Your task to perform on an android device: change notifications settings Image 0: 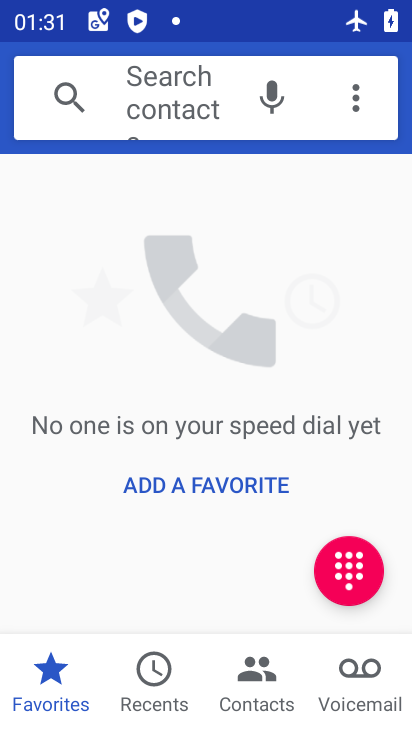
Step 0: press home button
Your task to perform on an android device: change notifications settings Image 1: 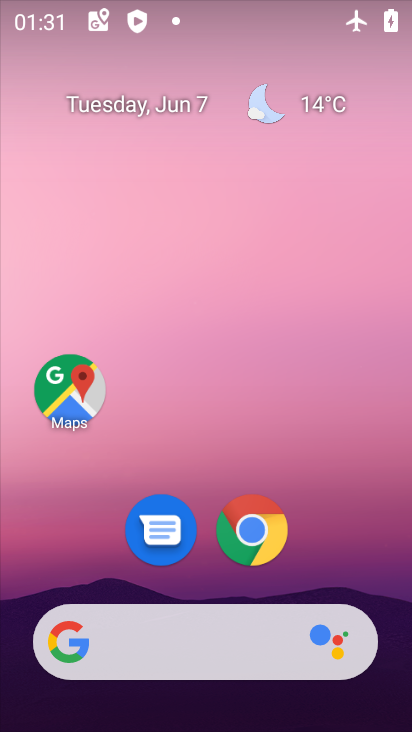
Step 1: drag from (346, 555) to (348, 335)
Your task to perform on an android device: change notifications settings Image 2: 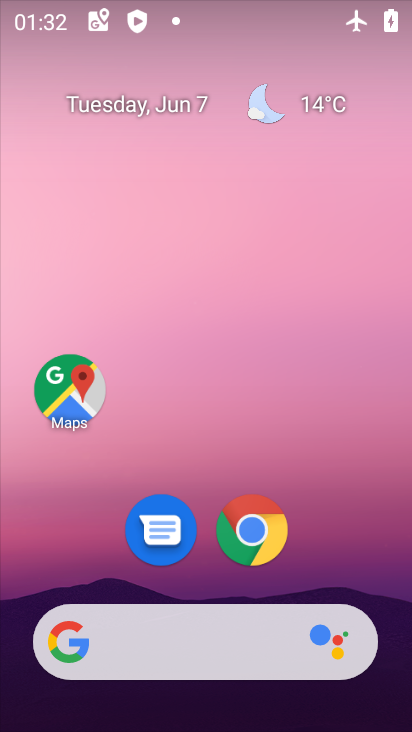
Step 2: drag from (287, 569) to (290, 153)
Your task to perform on an android device: change notifications settings Image 3: 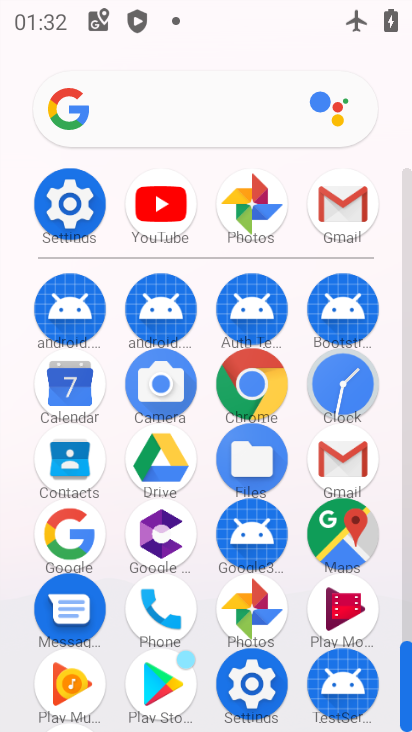
Step 3: click (72, 198)
Your task to perform on an android device: change notifications settings Image 4: 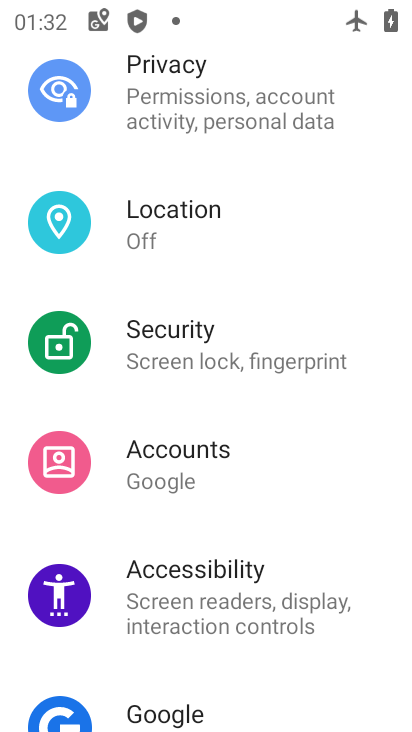
Step 4: drag from (223, 119) to (252, 577)
Your task to perform on an android device: change notifications settings Image 5: 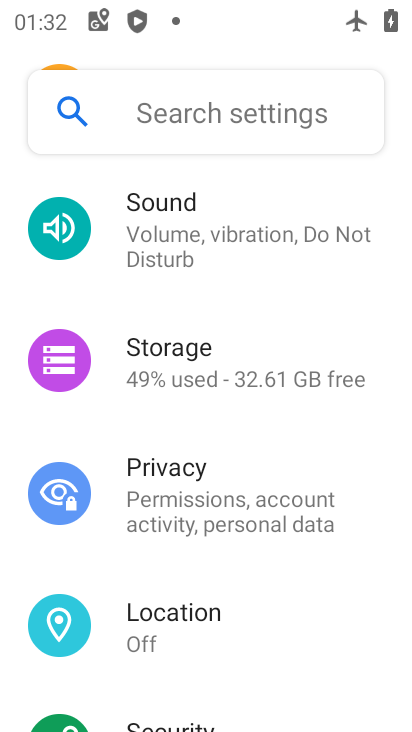
Step 5: drag from (236, 188) to (216, 578)
Your task to perform on an android device: change notifications settings Image 6: 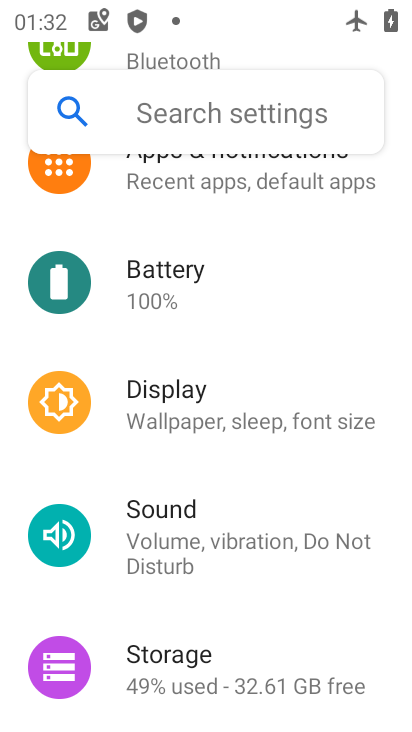
Step 6: drag from (229, 203) to (211, 664)
Your task to perform on an android device: change notifications settings Image 7: 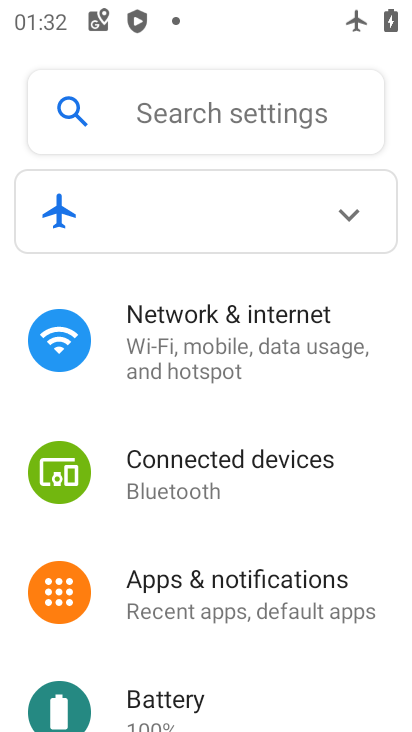
Step 7: click (216, 604)
Your task to perform on an android device: change notifications settings Image 8: 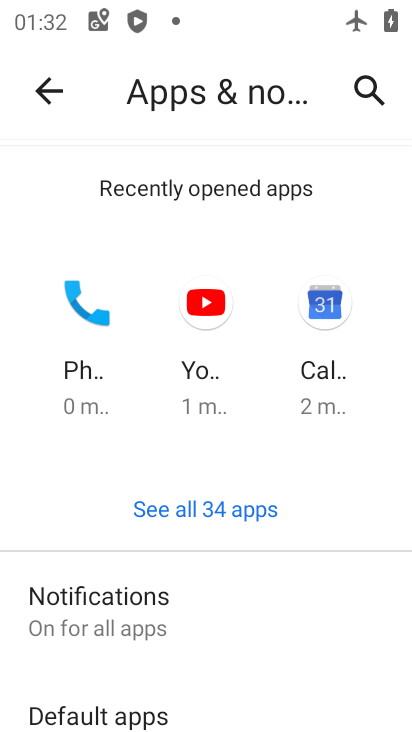
Step 8: drag from (149, 635) to (219, 317)
Your task to perform on an android device: change notifications settings Image 9: 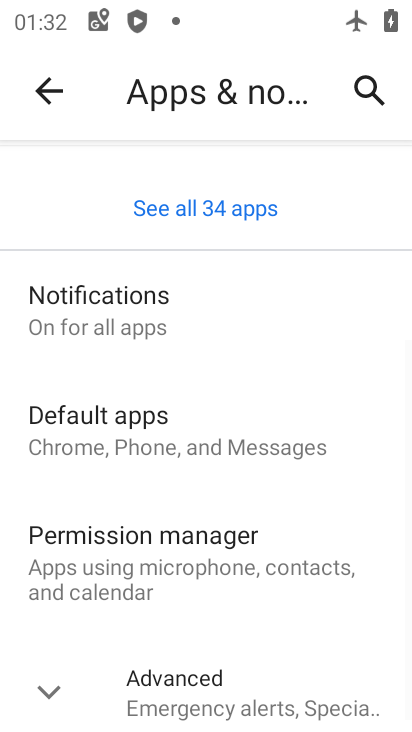
Step 9: click (156, 306)
Your task to perform on an android device: change notifications settings Image 10: 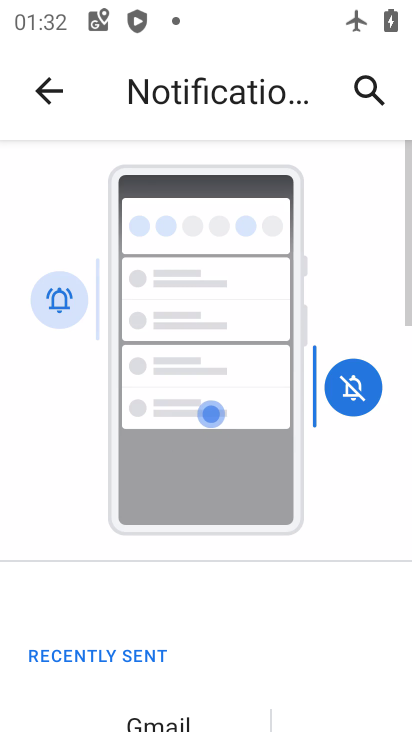
Step 10: drag from (227, 631) to (289, 195)
Your task to perform on an android device: change notifications settings Image 11: 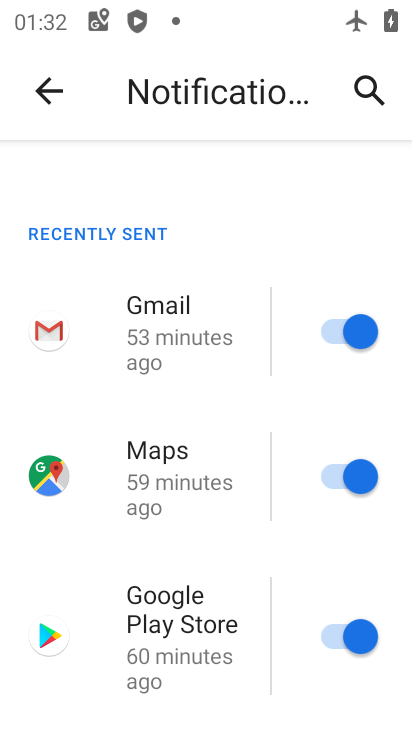
Step 11: drag from (250, 495) to (246, 340)
Your task to perform on an android device: change notifications settings Image 12: 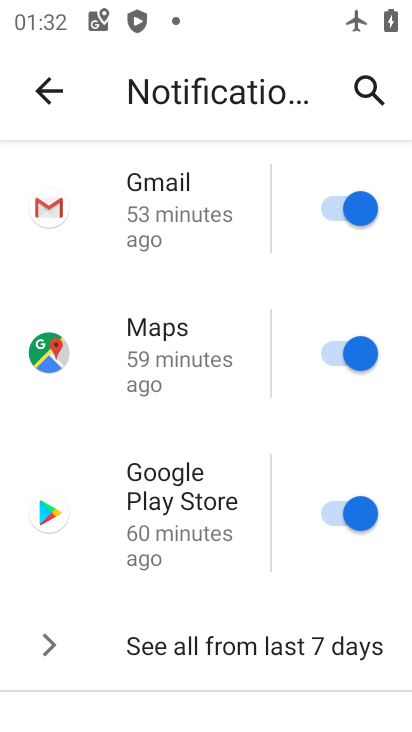
Step 12: click (180, 659)
Your task to perform on an android device: change notifications settings Image 13: 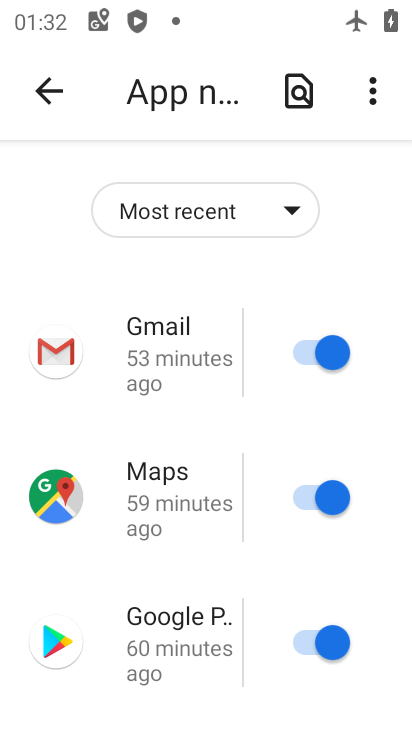
Step 13: drag from (216, 516) to (256, 271)
Your task to perform on an android device: change notifications settings Image 14: 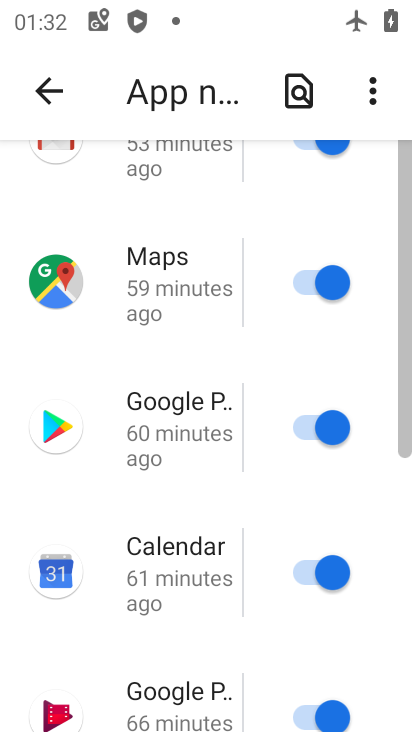
Step 14: click (305, 150)
Your task to perform on an android device: change notifications settings Image 15: 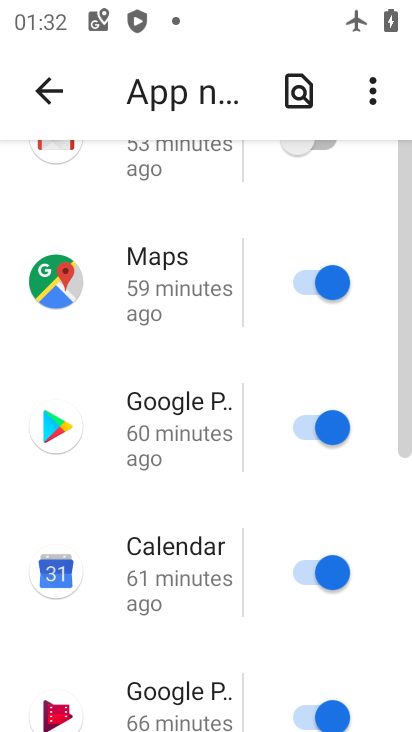
Step 15: click (316, 265)
Your task to perform on an android device: change notifications settings Image 16: 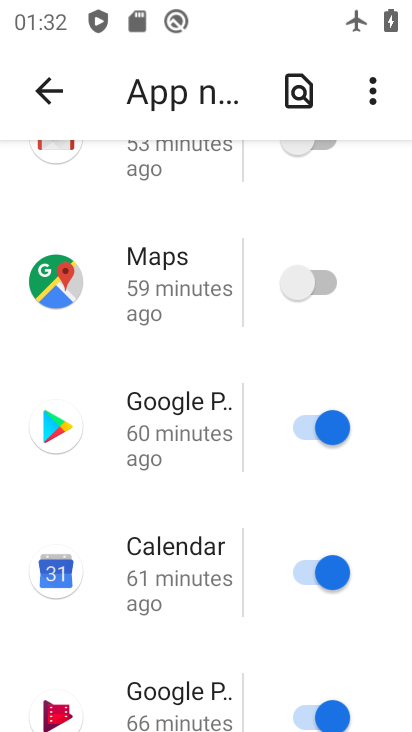
Step 16: click (304, 424)
Your task to perform on an android device: change notifications settings Image 17: 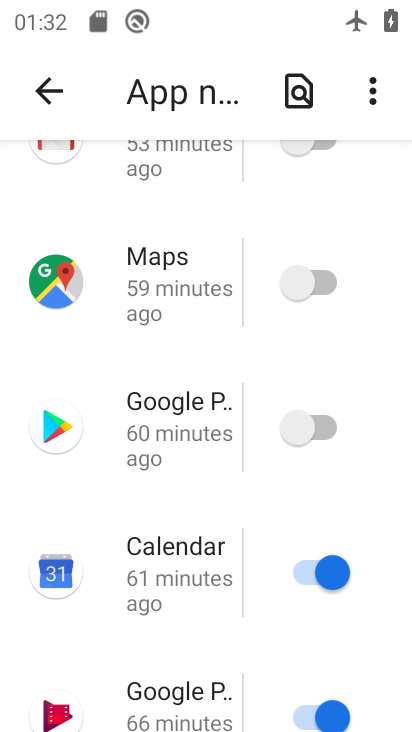
Step 17: click (307, 560)
Your task to perform on an android device: change notifications settings Image 18: 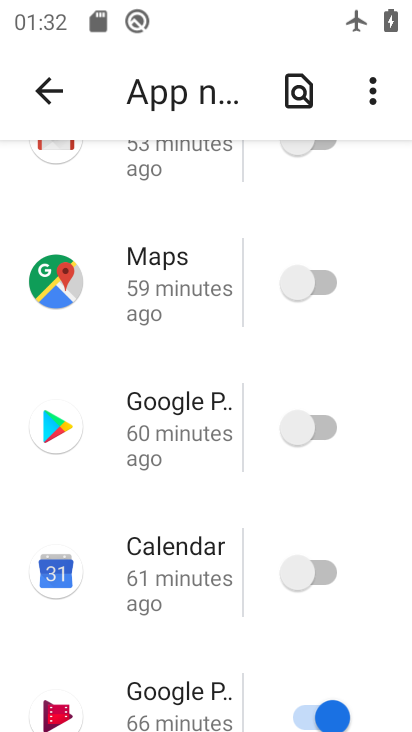
Step 18: drag from (209, 646) to (264, 228)
Your task to perform on an android device: change notifications settings Image 19: 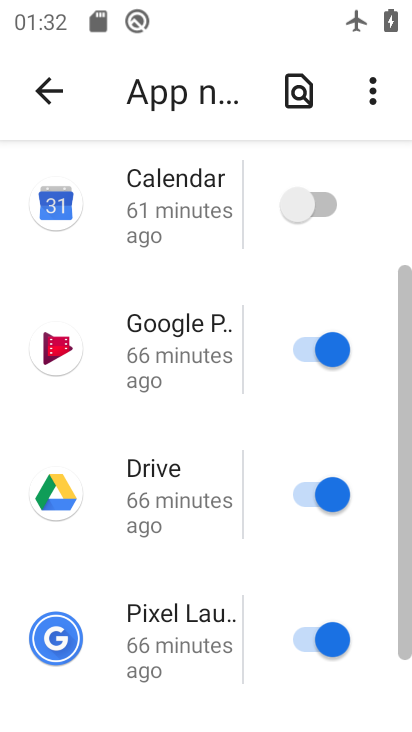
Step 19: click (312, 338)
Your task to perform on an android device: change notifications settings Image 20: 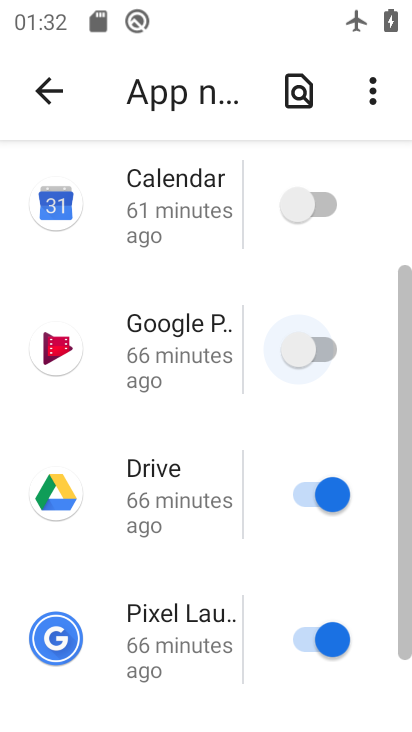
Step 20: click (309, 480)
Your task to perform on an android device: change notifications settings Image 21: 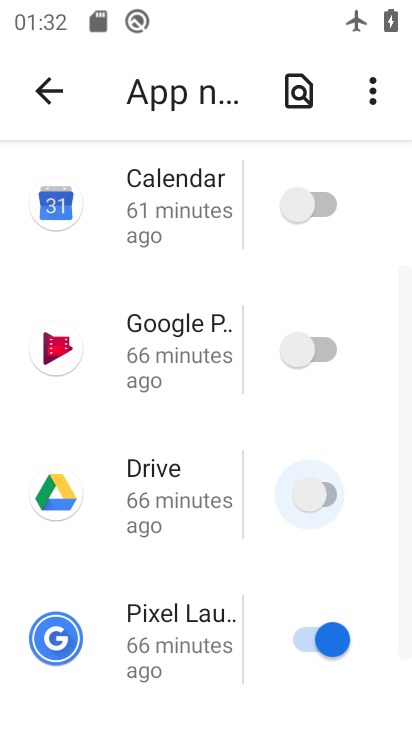
Step 21: click (310, 626)
Your task to perform on an android device: change notifications settings Image 22: 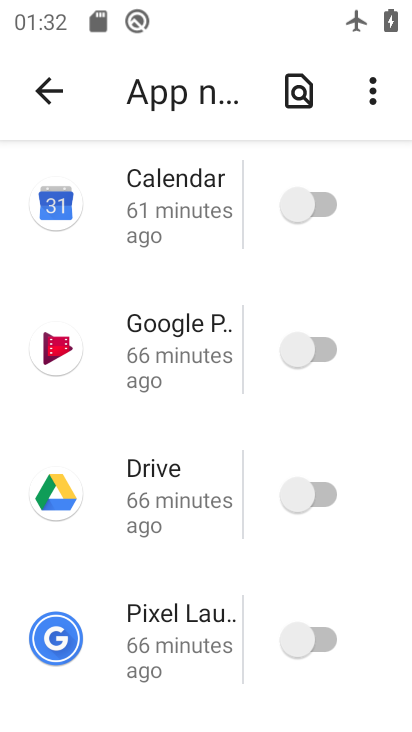
Step 22: drag from (165, 611) to (214, 262)
Your task to perform on an android device: change notifications settings Image 23: 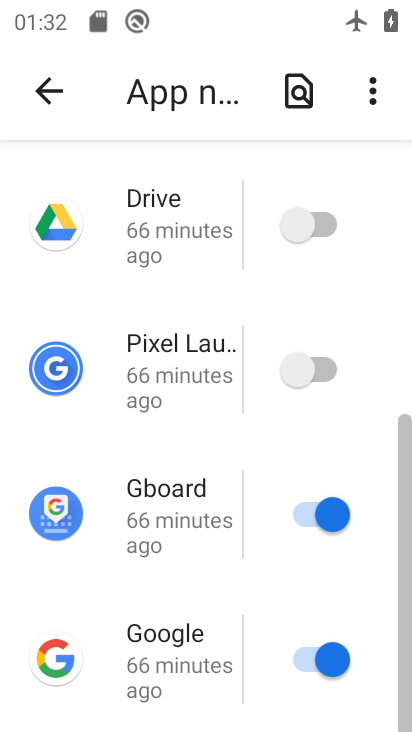
Step 23: click (293, 493)
Your task to perform on an android device: change notifications settings Image 24: 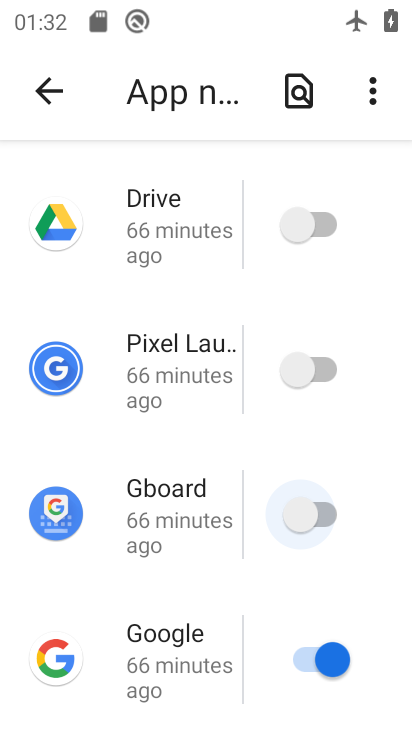
Step 24: click (302, 697)
Your task to perform on an android device: change notifications settings Image 25: 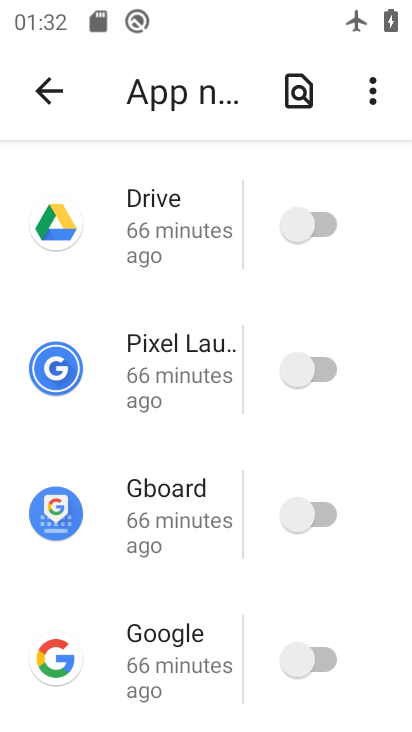
Step 25: task complete